Your task to perform on an android device: open app "Cash App" (install if not already installed) Image 0: 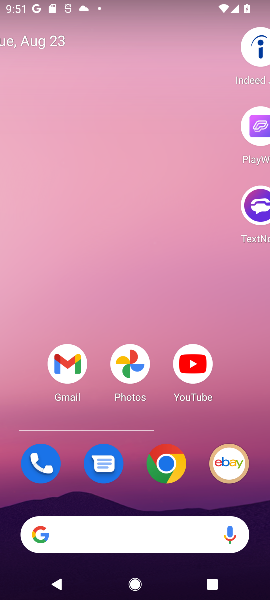
Step 0: press home button
Your task to perform on an android device: open app "Cash App" (install if not already installed) Image 1: 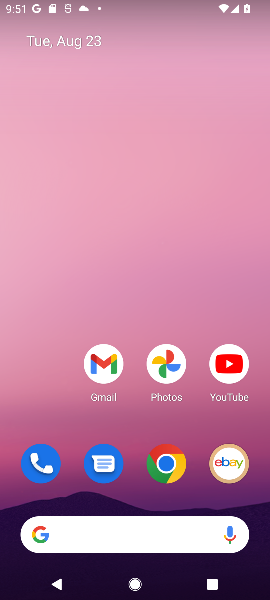
Step 1: drag from (136, 429) to (132, 58)
Your task to perform on an android device: open app "Cash App" (install if not already installed) Image 2: 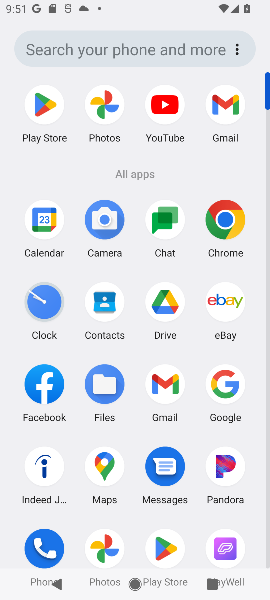
Step 2: click (43, 97)
Your task to perform on an android device: open app "Cash App" (install if not already installed) Image 3: 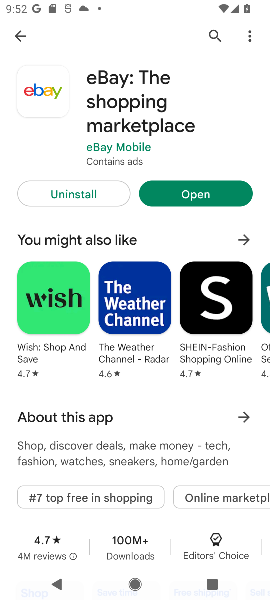
Step 3: click (211, 38)
Your task to perform on an android device: open app "Cash App" (install if not already installed) Image 4: 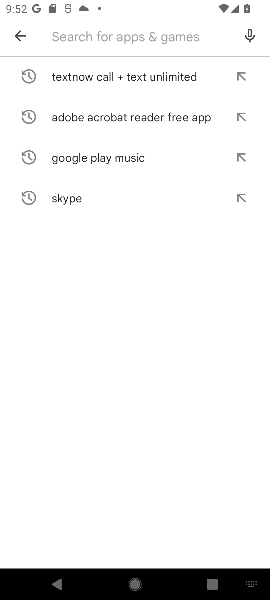
Step 4: type "Cash App"
Your task to perform on an android device: open app "Cash App" (install if not already installed) Image 5: 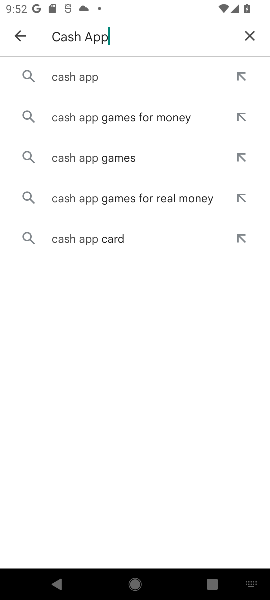
Step 5: click (99, 76)
Your task to perform on an android device: open app "Cash App" (install if not already installed) Image 6: 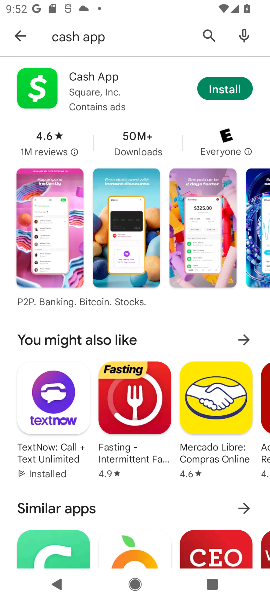
Step 6: click (227, 88)
Your task to perform on an android device: open app "Cash App" (install if not already installed) Image 7: 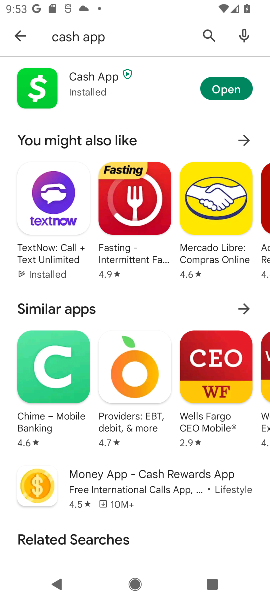
Step 7: click (231, 88)
Your task to perform on an android device: open app "Cash App" (install if not already installed) Image 8: 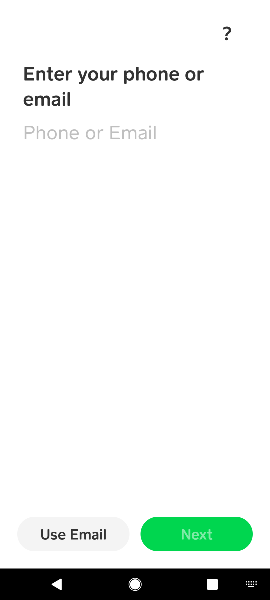
Step 8: task complete